Your task to perform on an android device: turn off javascript in the chrome app Image 0: 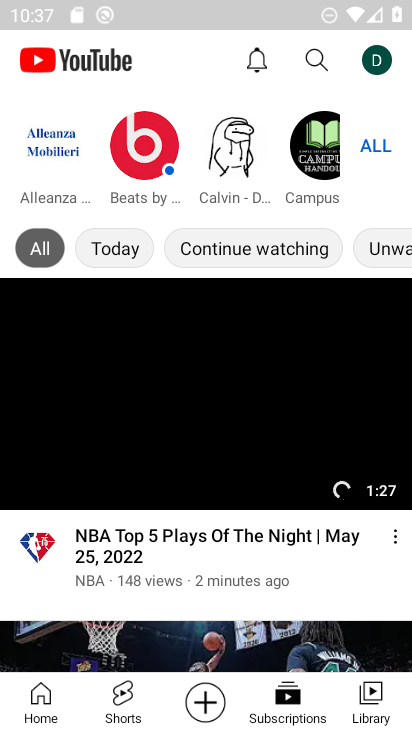
Step 0: press home button
Your task to perform on an android device: turn off javascript in the chrome app Image 1: 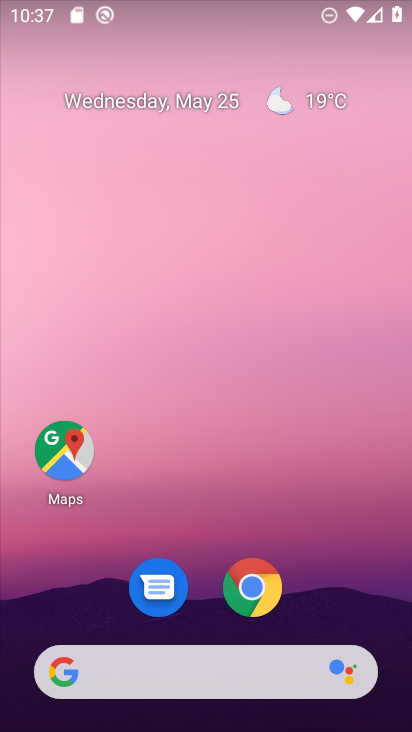
Step 1: click (257, 587)
Your task to perform on an android device: turn off javascript in the chrome app Image 2: 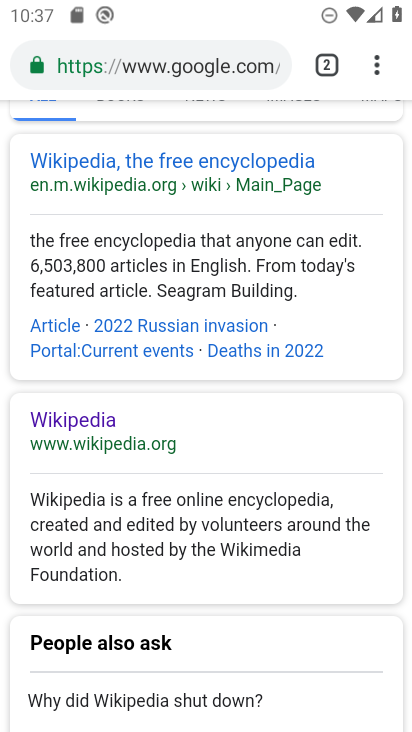
Step 2: click (376, 74)
Your task to perform on an android device: turn off javascript in the chrome app Image 3: 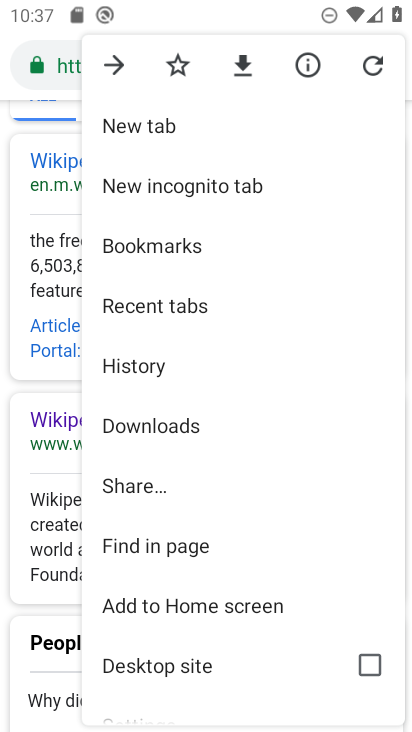
Step 3: drag from (294, 613) to (289, 372)
Your task to perform on an android device: turn off javascript in the chrome app Image 4: 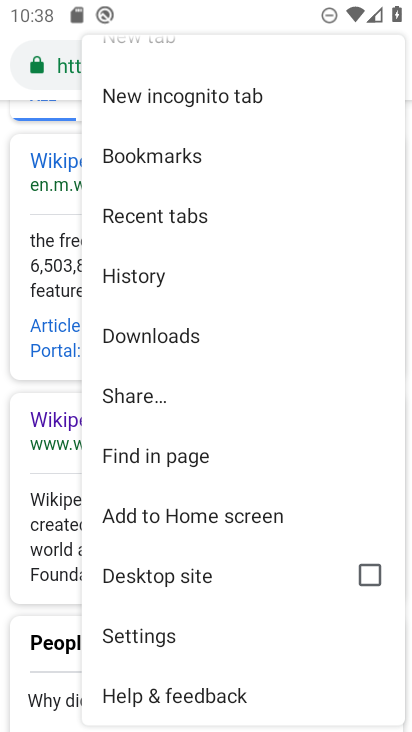
Step 4: click (122, 625)
Your task to perform on an android device: turn off javascript in the chrome app Image 5: 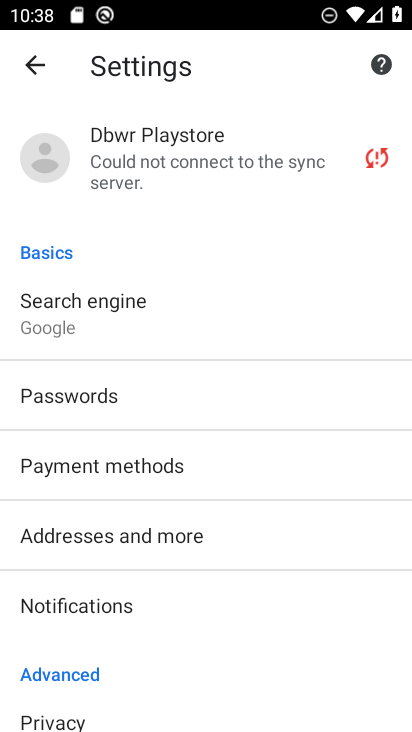
Step 5: drag from (195, 662) to (275, 347)
Your task to perform on an android device: turn off javascript in the chrome app Image 6: 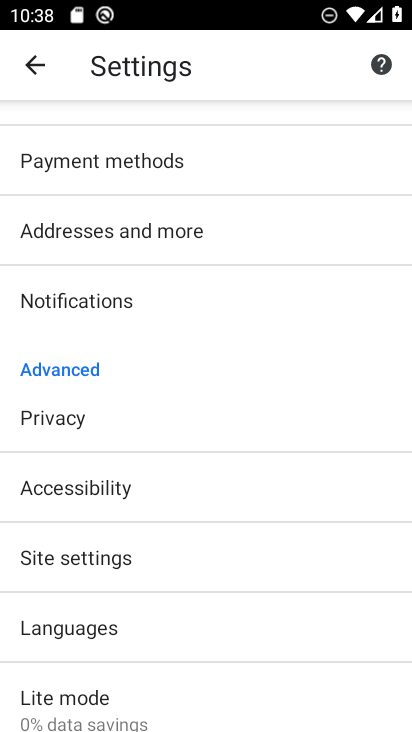
Step 6: click (55, 559)
Your task to perform on an android device: turn off javascript in the chrome app Image 7: 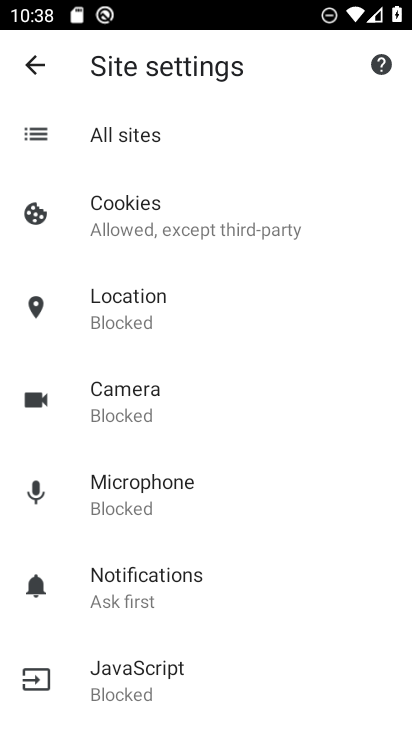
Step 7: click (162, 668)
Your task to perform on an android device: turn off javascript in the chrome app Image 8: 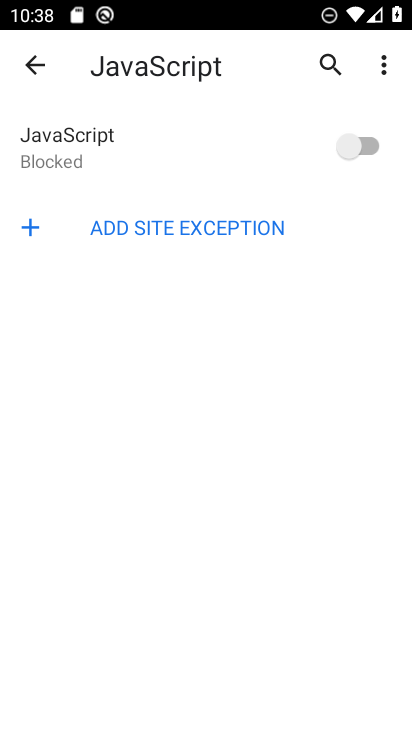
Step 8: task complete